Your task to perform on an android device: Find coffee shops on Maps Image 0: 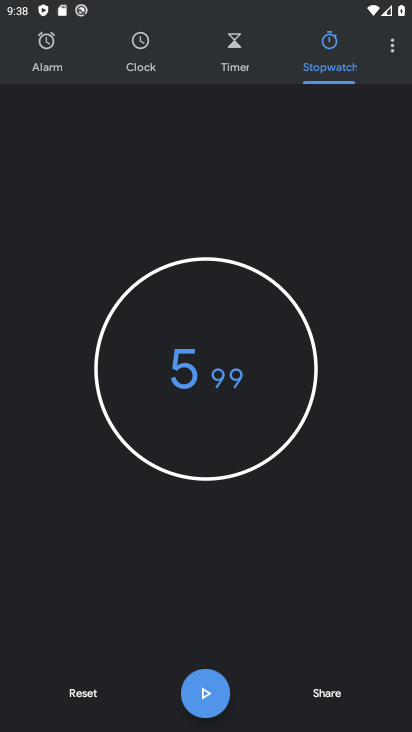
Step 0: press home button
Your task to perform on an android device: Find coffee shops on Maps Image 1: 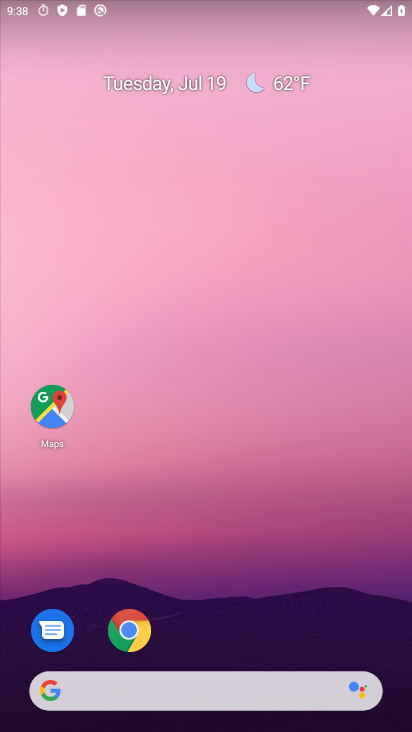
Step 1: click (37, 407)
Your task to perform on an android device: Find coffee shops on Maps Image 2: 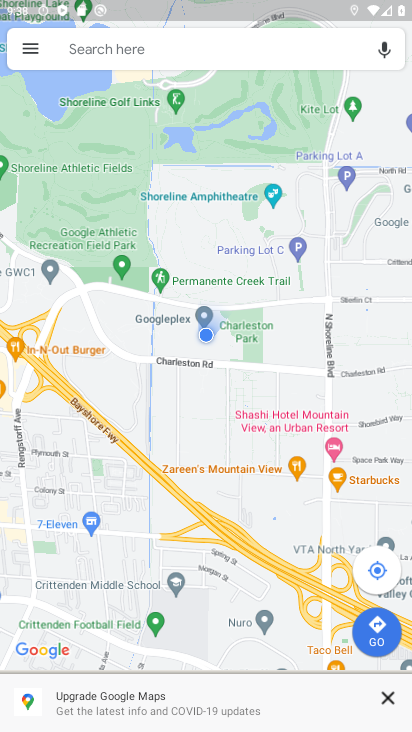
Step 2: click (102, 54)
Your task to perform on an android device: Find coffee shops on Maps Image 3: 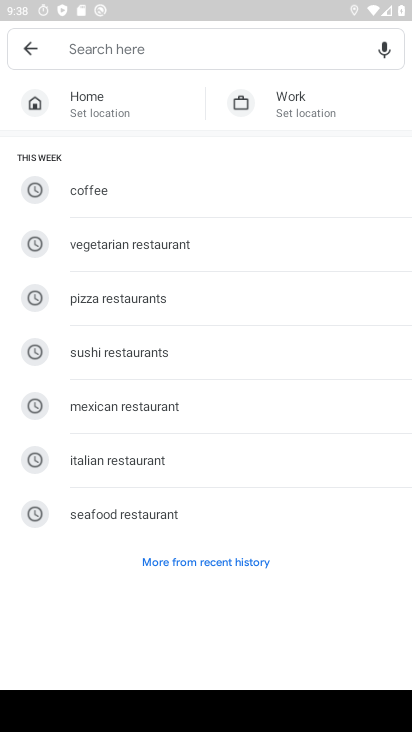
Step 3: click (94, 186)
Your task to perform on an android device: Find coffee shops on Maps Image 4: 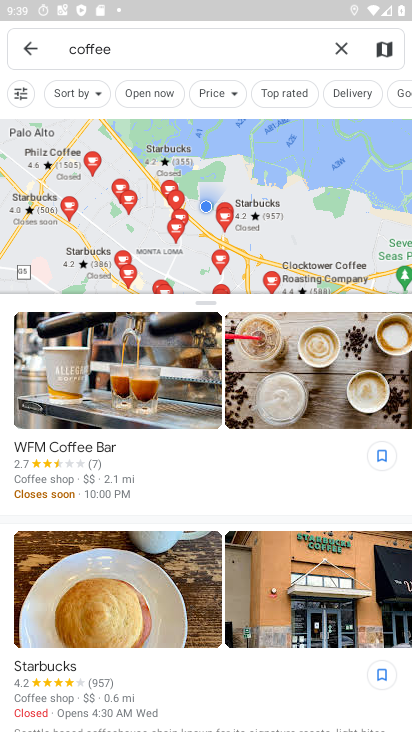
Step 4: task complete